Your task to perform on an android device: turn on wifi Image 0: 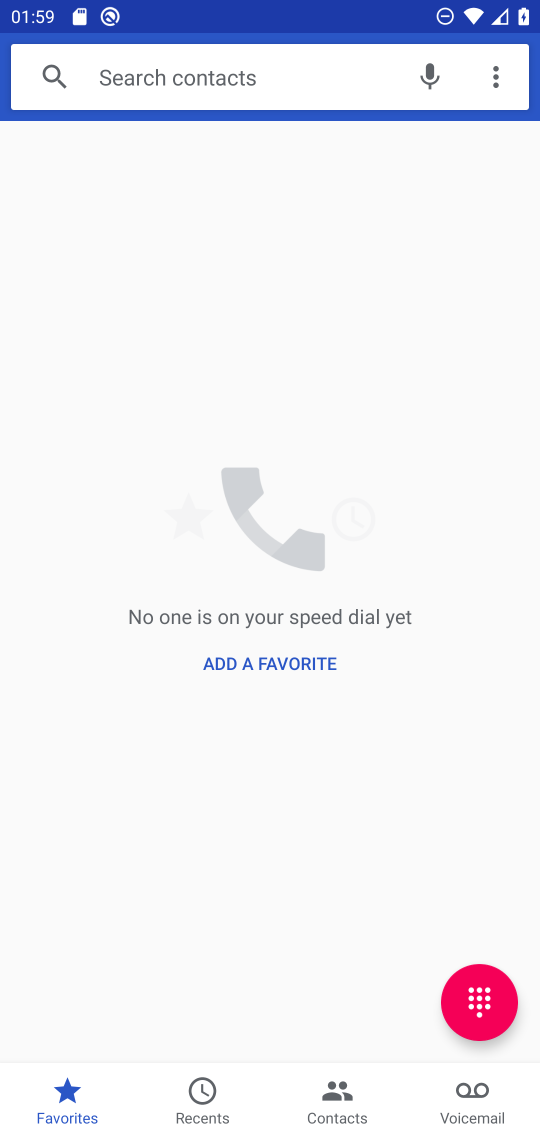
Step 0: press home button
Your task to perform on an android device: turn on wifi Image 1: 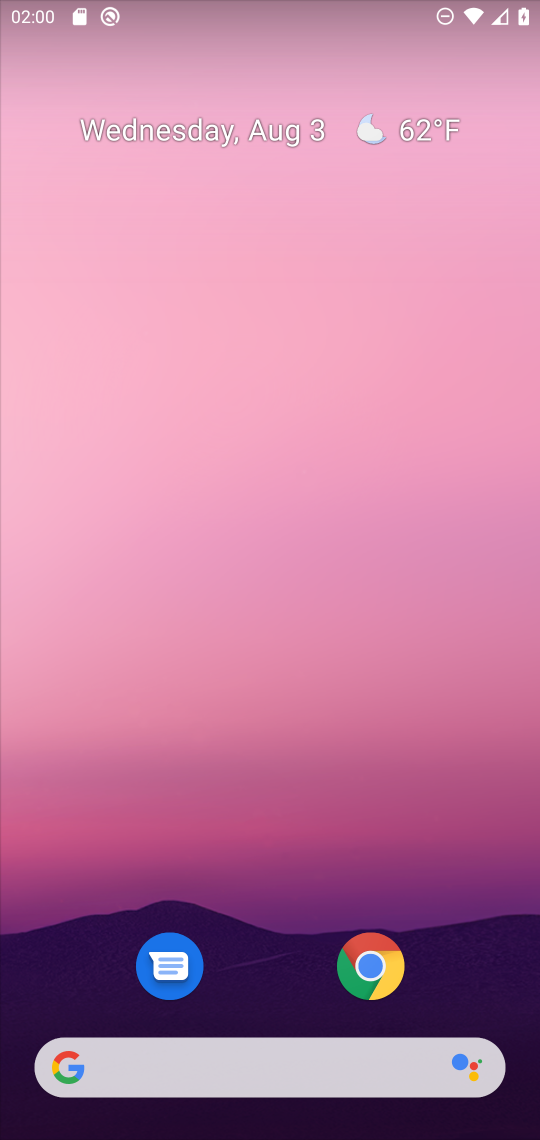
Step 1: drag from (278, 862) to (247, 366)
Your task to perform on an android device: turn on wifi Image 2: 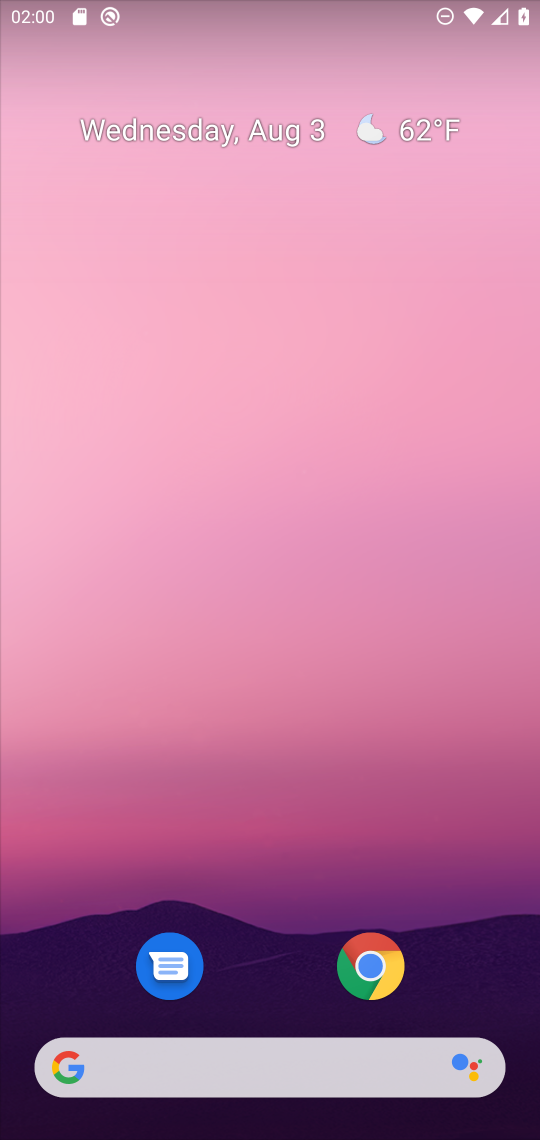
Step 2: drag from (288, 884) to (307, 131)
Your task to perform on an android device: turn on wifi Image 3: 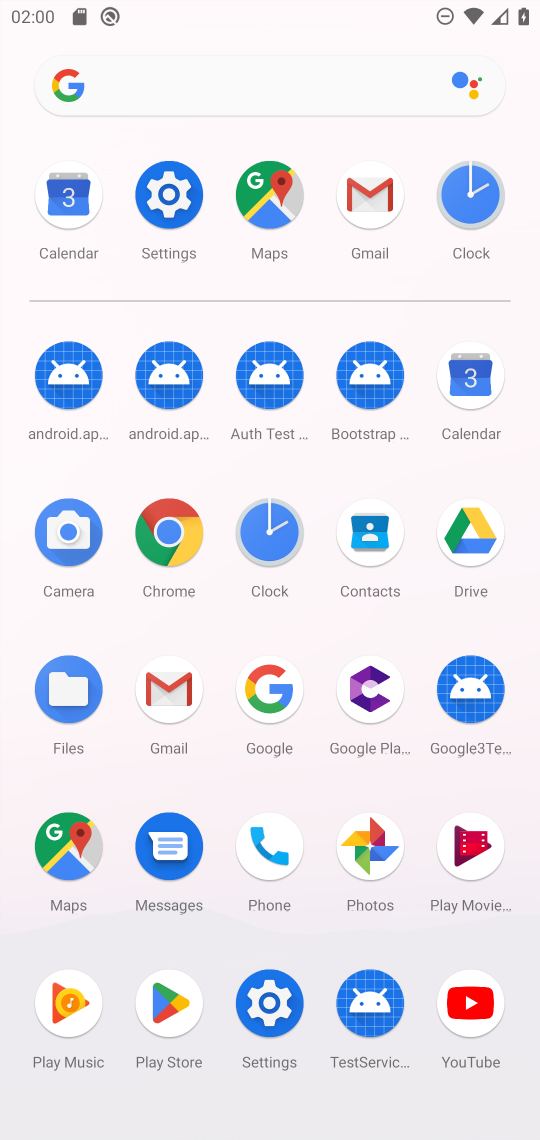
Step 3: click (152, 224)
Your task to perform on an android device: turn on wifi Image 4: 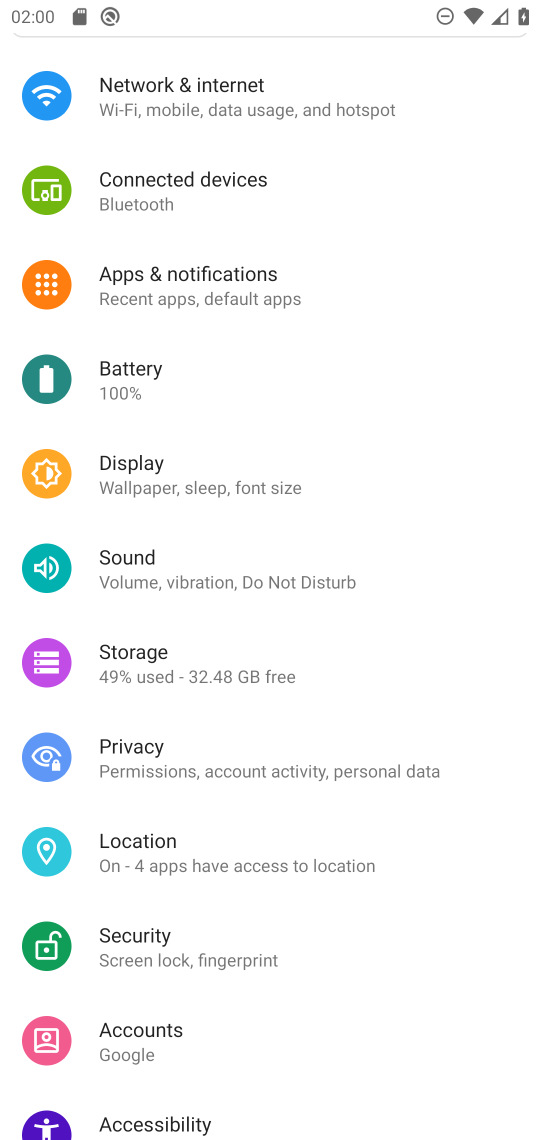
Step 4: click (217, 108)
Your task to perform on an android device: turn on wifi Image 5: 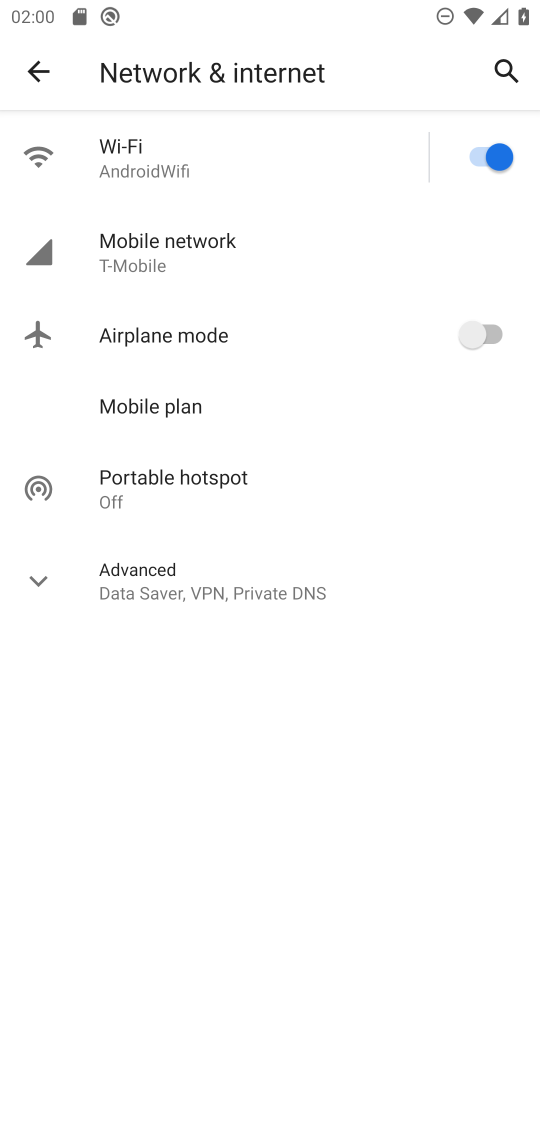
Step 5: task complete